Your task to perform on an android device: What's the weather going to be tomorrow? Image 0: 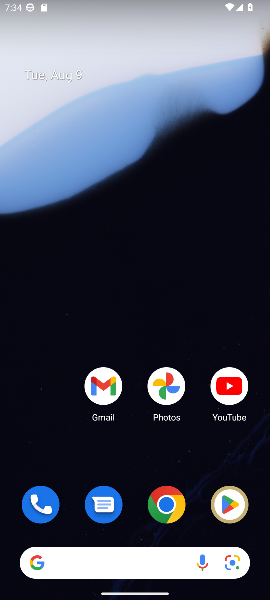
Step 0: click (161, 510)
Your task to perform on an android device: What's the weather going to be tomorrow? Image 1: 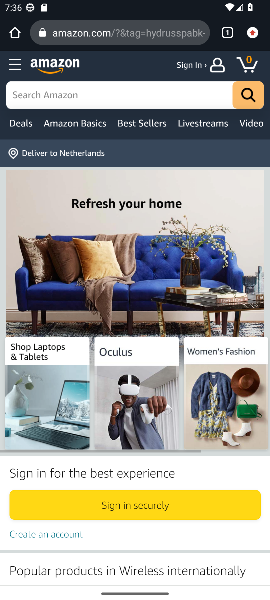
Step 1: click (180, 31)
Your task to perform on an android device: What's the weather going to be tomorrow? Image 2: 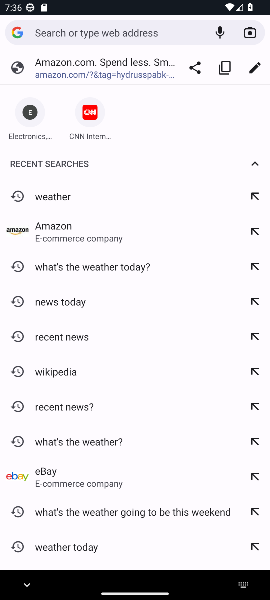
Step 2: type "What's the weather going to be tomorrow?"
Your task to perform on an android device: What's the weather going to be tomorrow? Image 3: 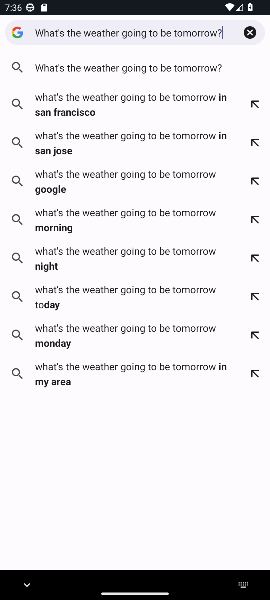
Step 3: click (109, 63)
Your task to perform on an android device: What's the weather going to be tomorrow? Image 4: 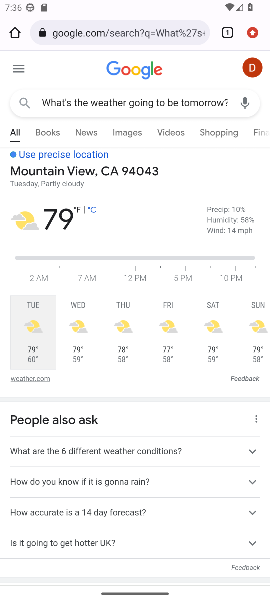
Step 4: task complete